Your task to perform on an android device: uninstall "Spotify" Image 0: 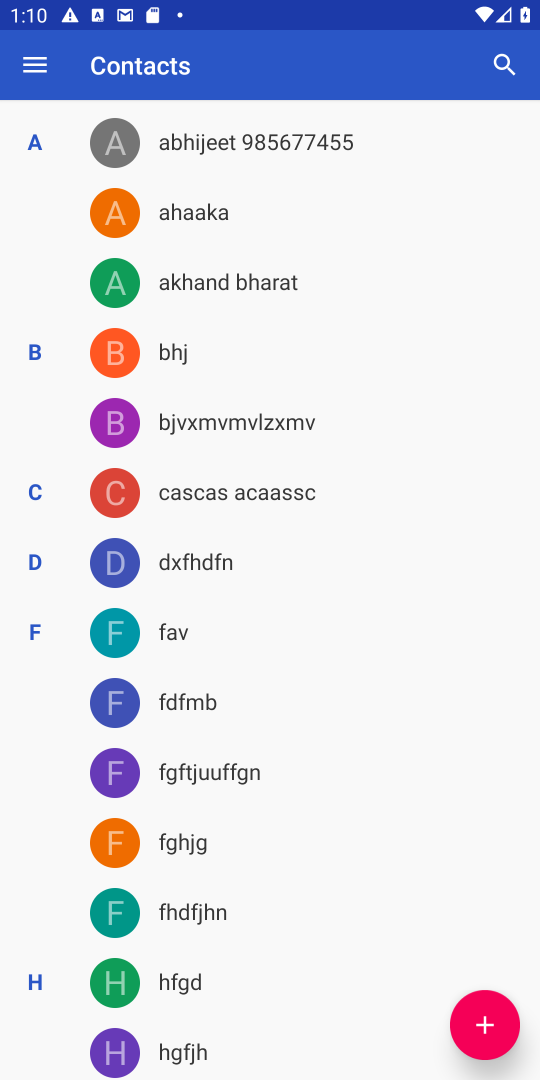
Step 0: press home button
Your task to perform on an android device: uninstall "Spotify" Image 1: 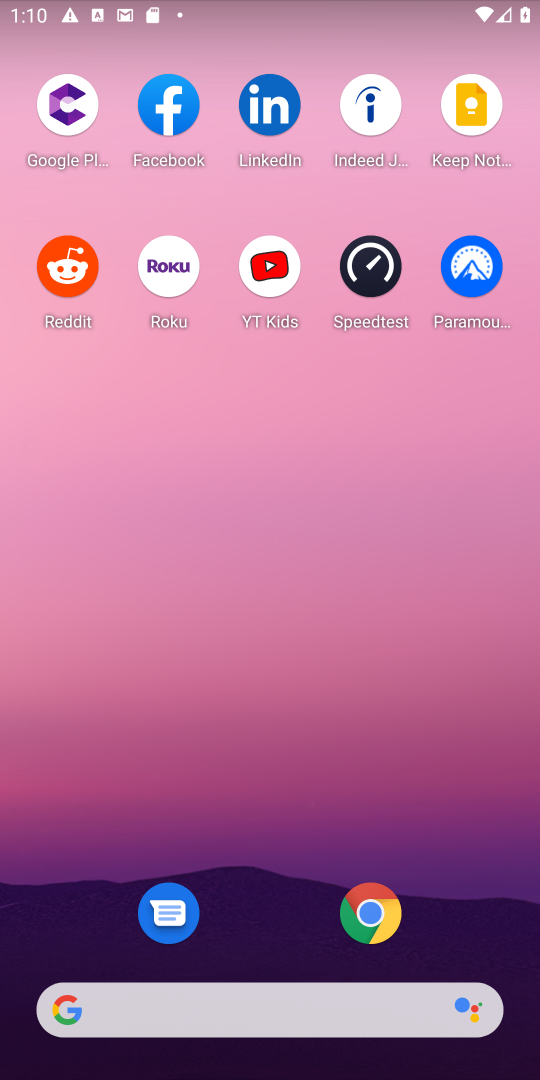
Step 1: task complete